Your task to perform on an android device: Search for sushi restaurants on Maps Image 0: 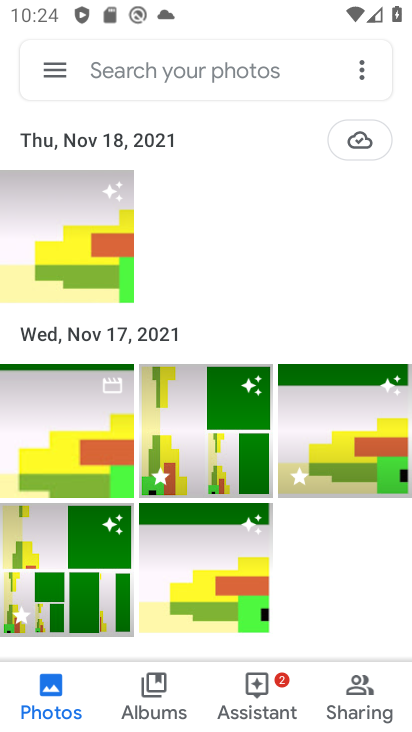
Step 0: press back button
Your task to perform on an android device: Search for sushi restaurants on Maps Image 1: 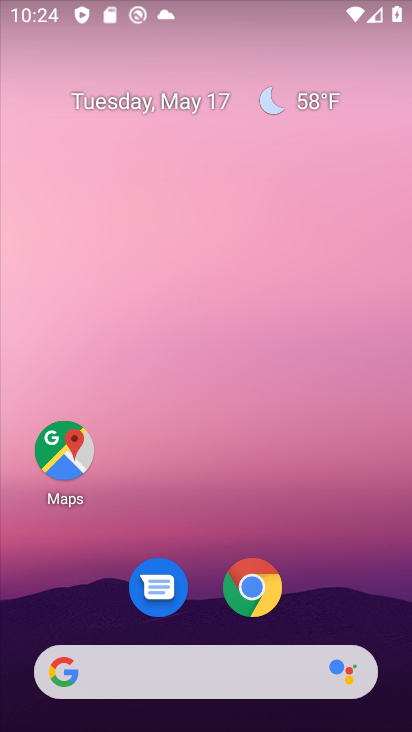
Step 1: click (63, 452)
Your task to perform on an android device: Search for sushi restaurants on Maps Image 2: 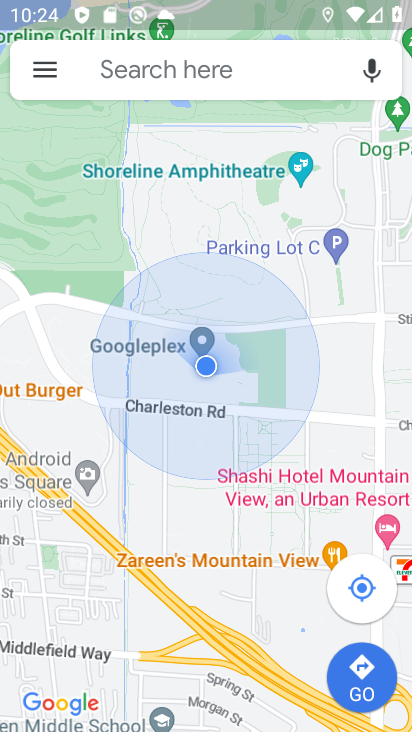
Step 2: click (159, 75)
Your task to perform on an android device: Search for sushi restaurants on Maps Image 3: 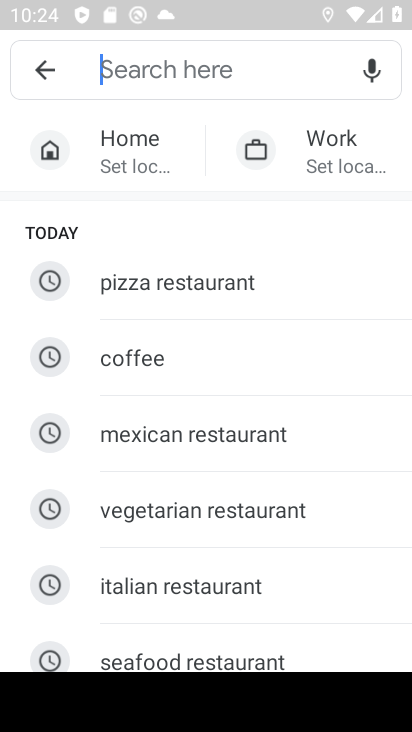
Step 3: type "sushi restaurants"
Your task to perform on an android device: Search for sushi restaurants on Maps Image 4: 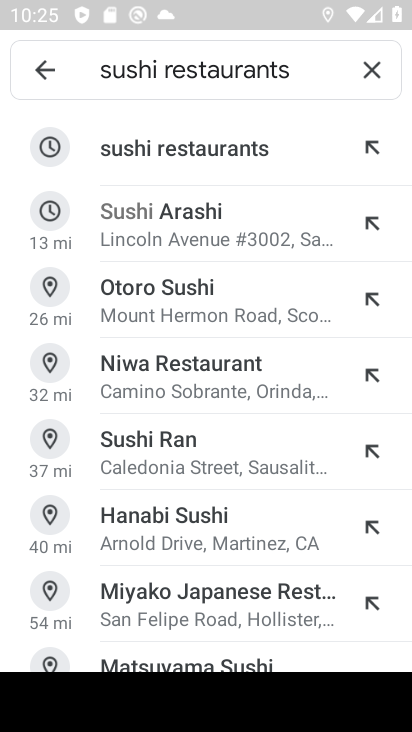
Step 4: click (216, 154)
Your task to perform on an android device: Search for sushi restaurants on Maps Image 5: 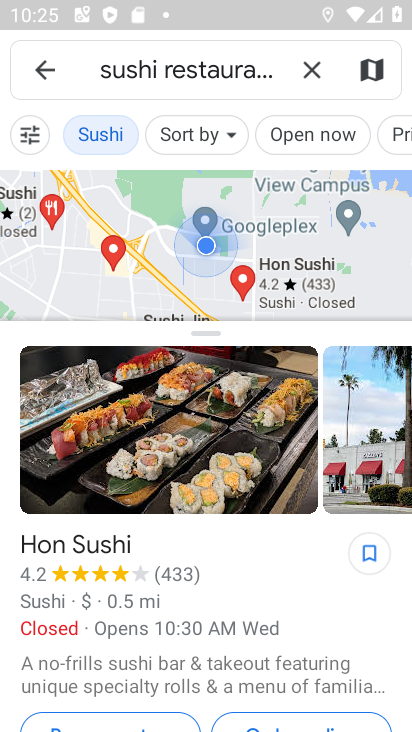
Step 5: task complete